Your task to perform on an android device: Go to CNN.com Image 0: 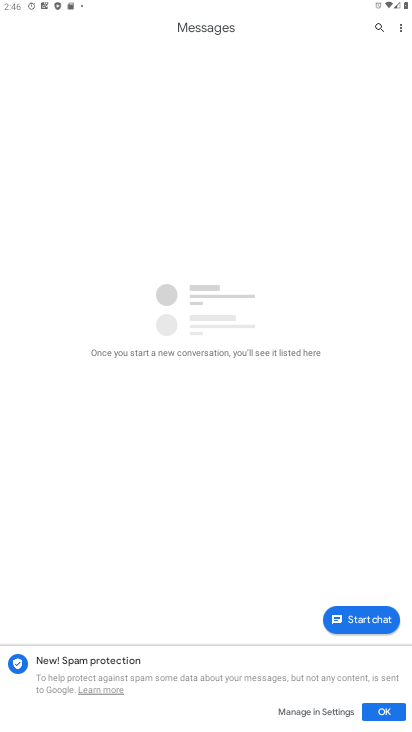
Step 0: press back button
Your task to perform on an android device: Go to CNN.com Image 1: 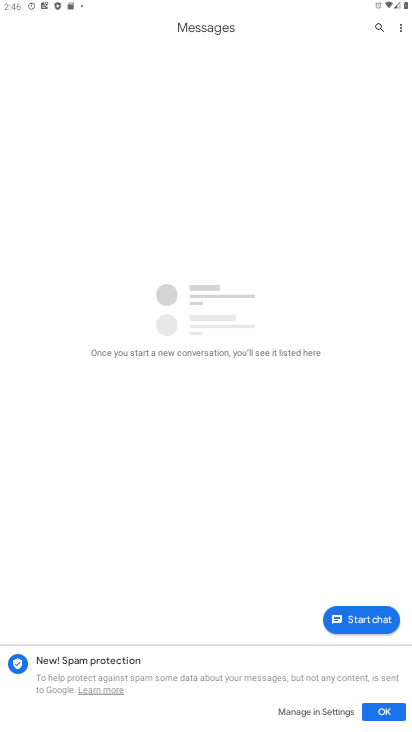
Step 1: press home button
Your task to perform on an android device: Go to CNN.com Image 2: 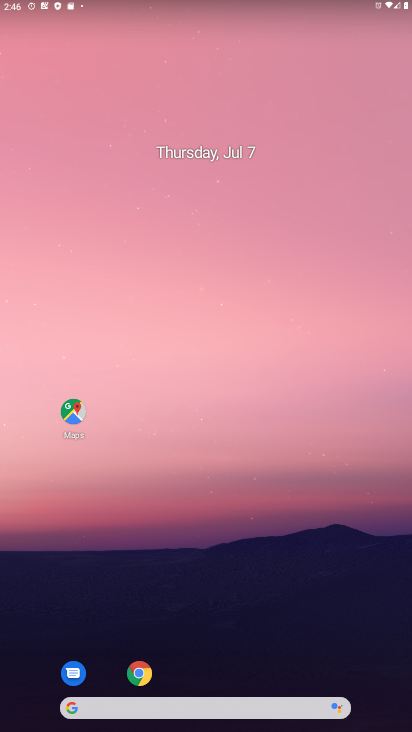
Step 2: drag from (191, 683) to (160, 6)
Your task to perform on an android device: Go to CNN.com Image 3: 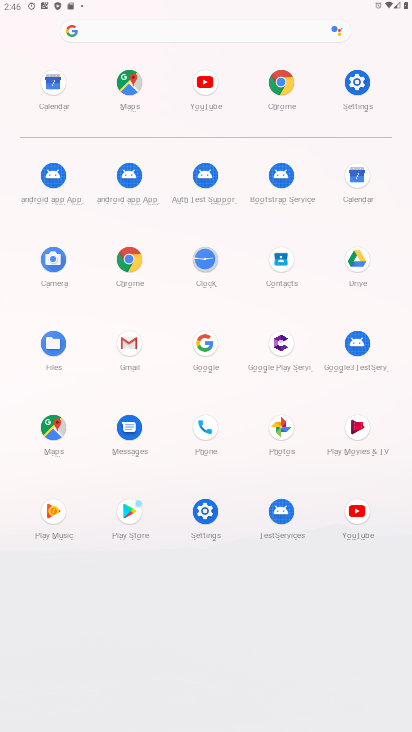
Step 3: click (125, 265)
Your task to perform on an android device: Go to CNN.com Image 4: 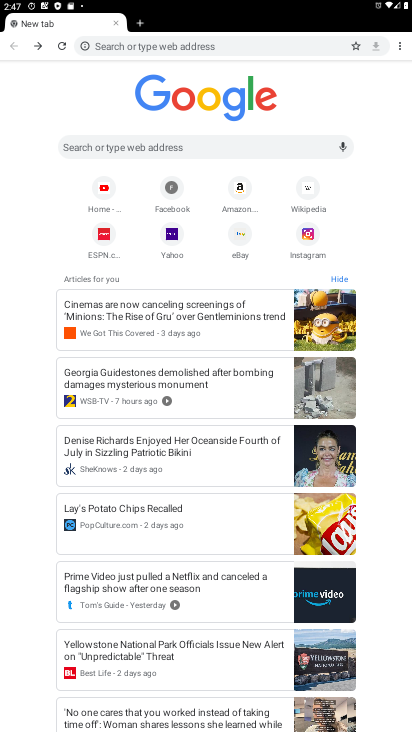
Step 4: click (231, 145)
Your task to perform on an android device: Go to CNN.com Image 5: 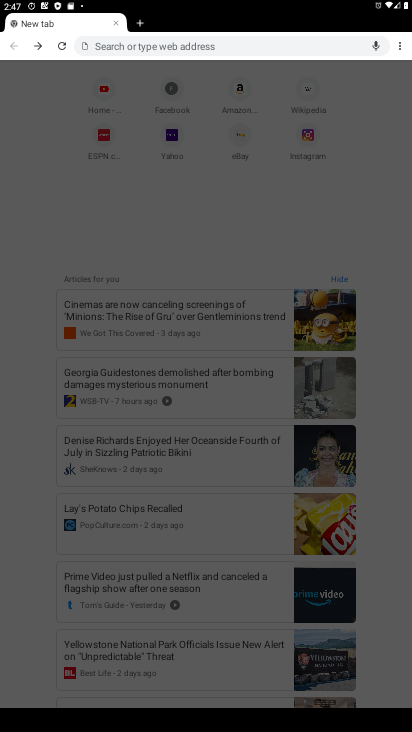
Step 5: type "cnn"
Your task to perform on an android device: Go to CNN.com Image 6: 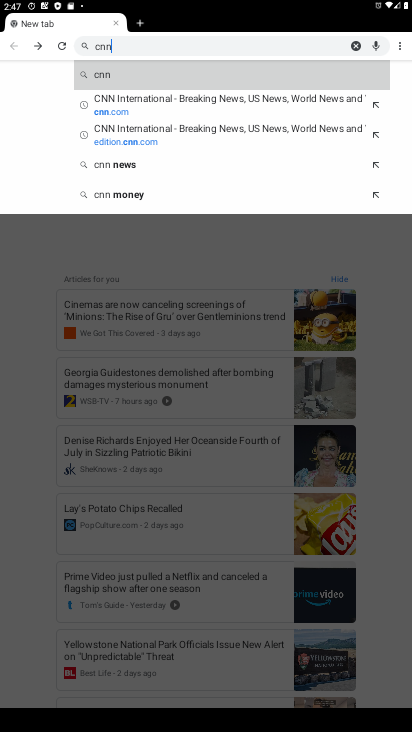
Step 6: type ""
Your task to perform on an android device: Go to CNN.com Image 7: 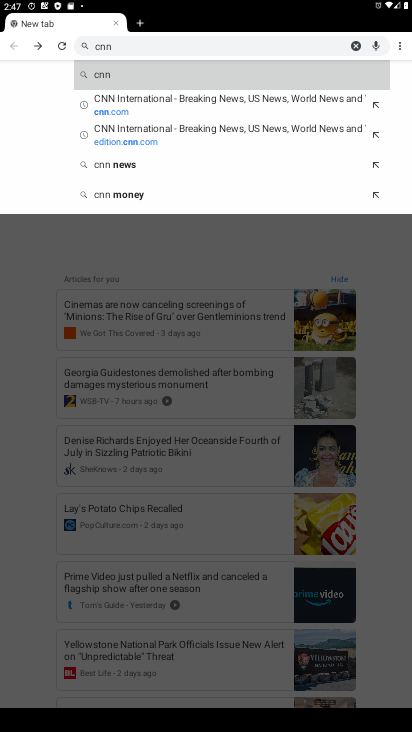
Step 7: click (117, 110)
Your task to perform on an android device: Go to CNN.com Image 8: 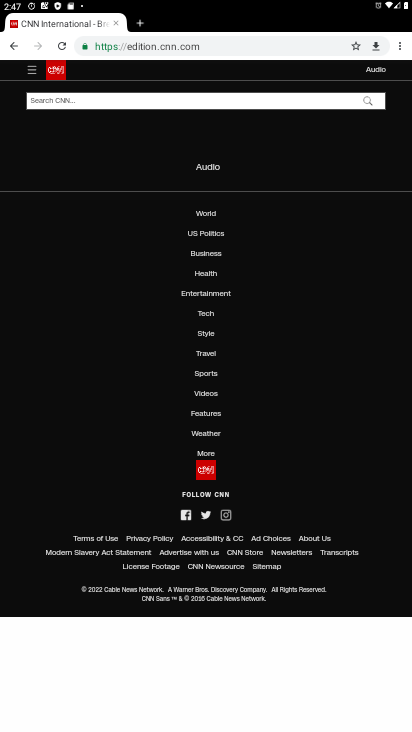
Step 8: task complete